Your task to perform on an android device: Open calendar and show me the second week of next month Image 0: 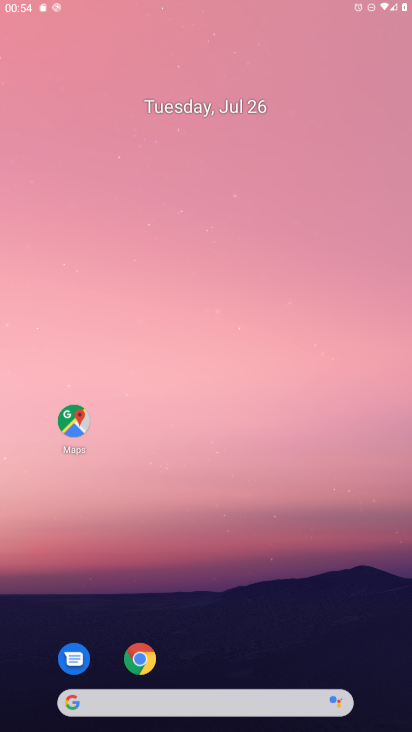
Step 0: drag from (387, 134) to (382, 71)
Your task to perform on an android device: Open calendar and show me the second week of next month Image 1: 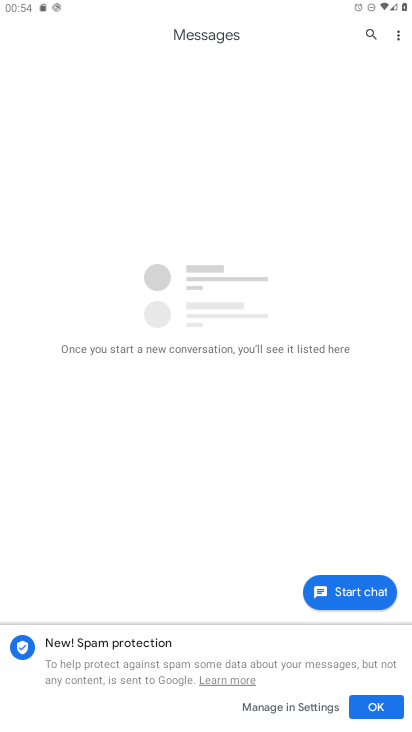
Step 1: press home button
Your task to perform on an android device: Open calendar and show me the second week of next month Image 2: 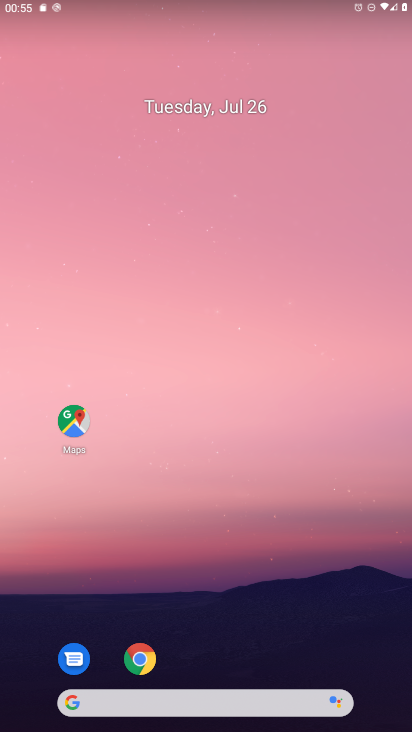
Step 2: drag from (207, 615) to (279, 101)
Your task to perform on an android device: Open calendar and show me the second week of next month Image 3: 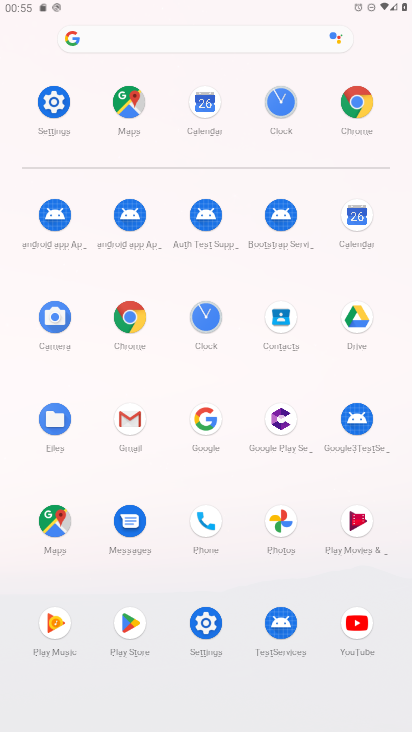
Step 3: click (354, 219)
Your task to perform on an android device: Open calendar and show me the second week of next month Image 4: 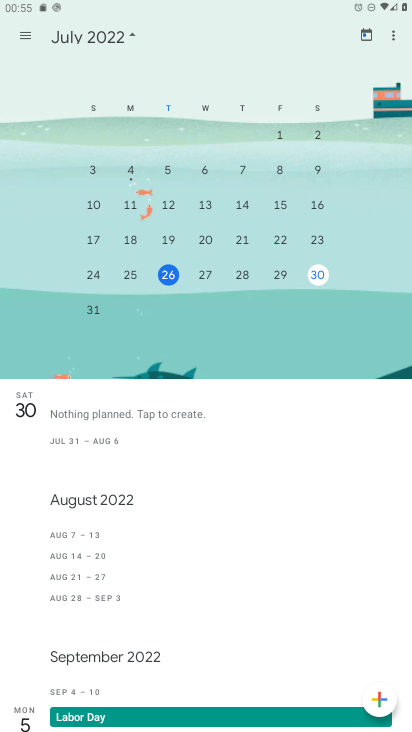
Step 4: drag from (347, 215) to (12, 137)
Your task to perform on an android device: Open calendar and show me the second week of next month Image 5: 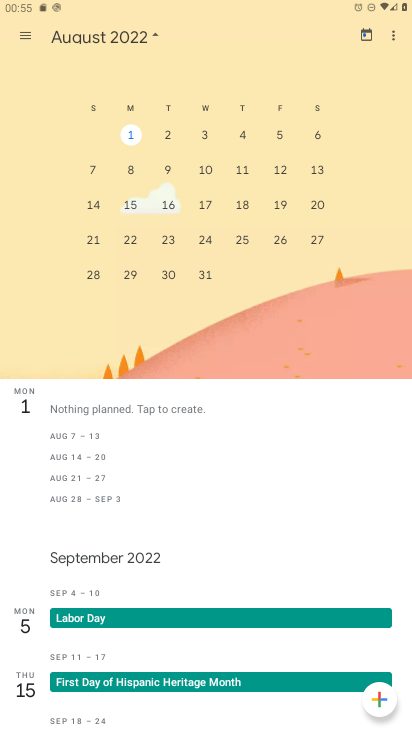
Step 5: click (99, 201)
Your task to perform on an android device: Open calendar and show me the second week of next month Image 6: 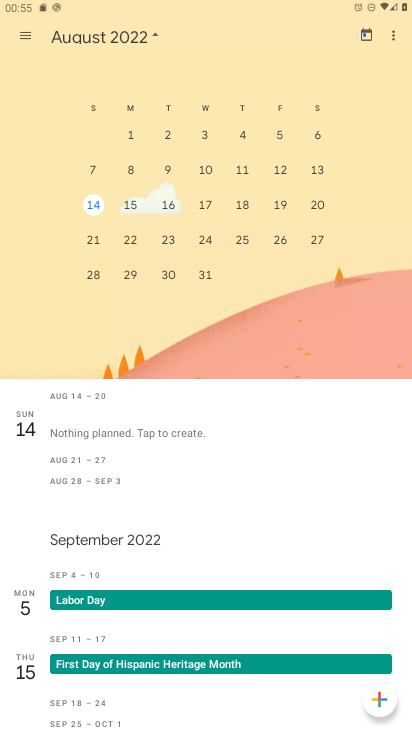
Step 6: task complete